Your task to perform on an android device: turn on location history Image 0: 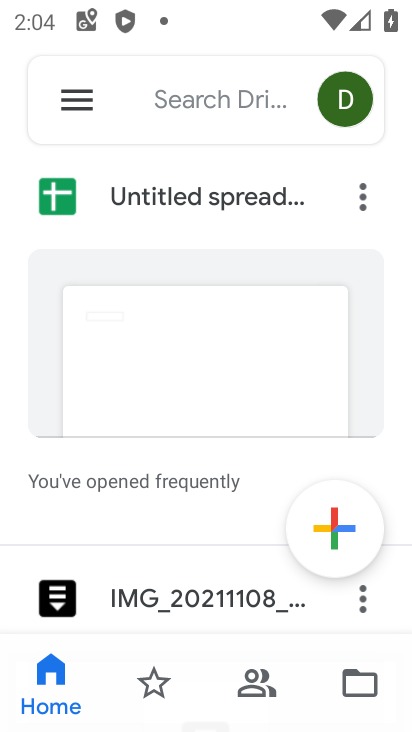
Step 0: press home button
Your task to perform on an android device: turn on location history Image 1: 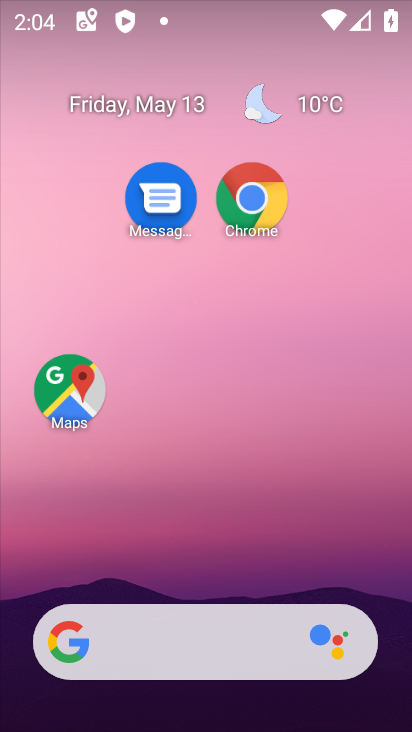
Step 1: drag from (204, 582) to (257, 24)
Your task to perform on an android device: turn on location history Image 2: 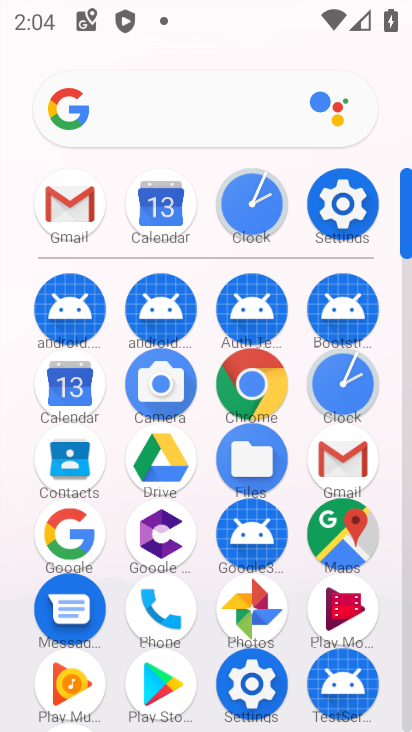
Step 2: click (347, 216)
Your task to perform on an android device: turn on location history Image 3: 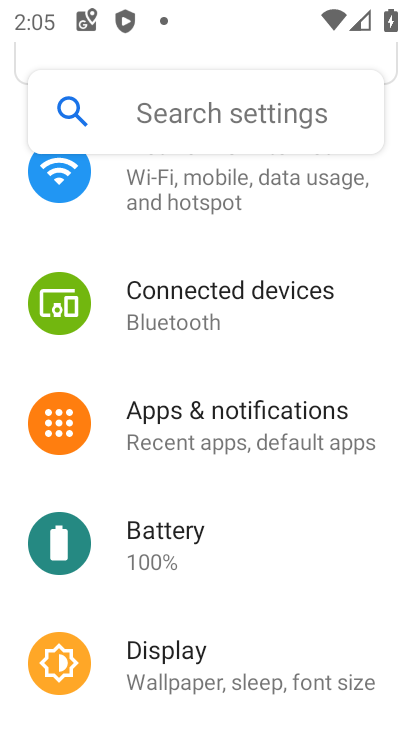
Step 3: drag from (257, 613) to (225, 194)
Your task to perform on an android device: turn on location history Image 4: 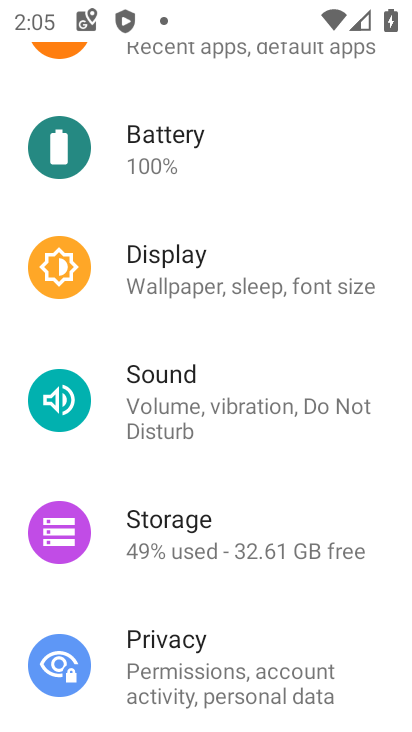
Step 4: drag from (225, 625) to (216, 204)
Your task to perform on an android device: turn on location history Image 5: 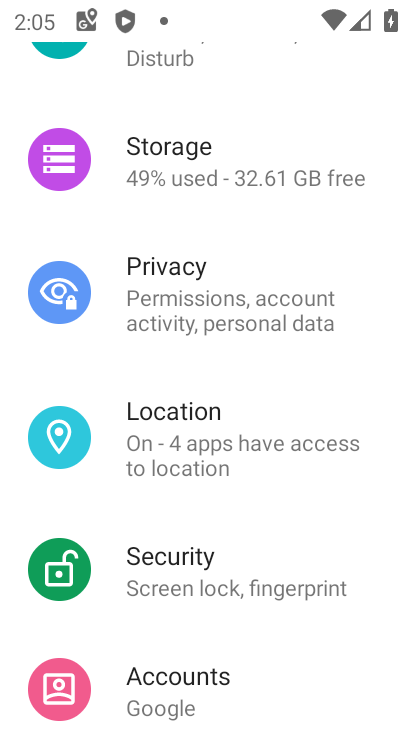
Step 5: click (167, 453)
Your task to perform on an android device: turn on location history Image 6: 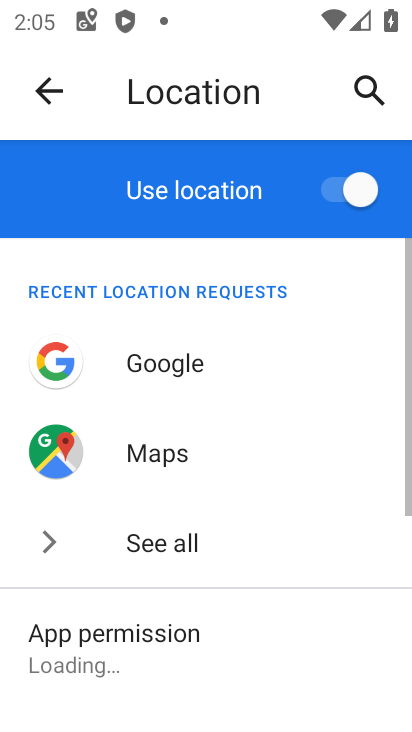
Step 6: drag from (275, 632) to (229, 242)
Your task to perform on an android device: turn on location history Image 7: 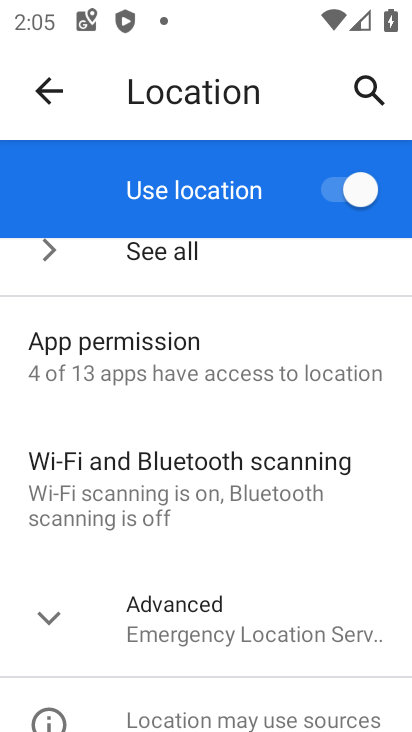
Step 7: click (177, 600)
Your task to perform on an android device: turn on location history Image 8: 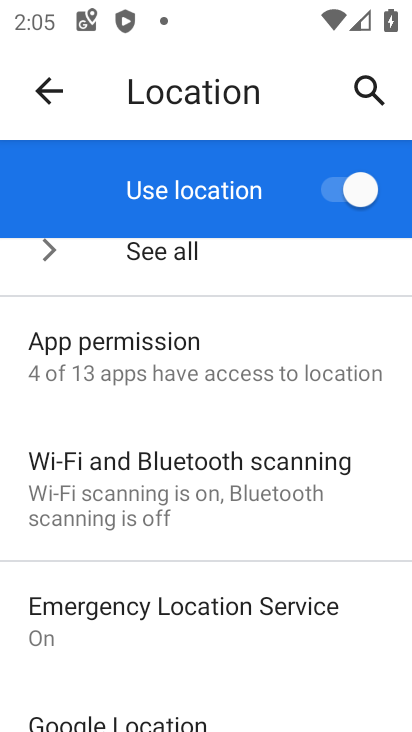
Step 8: drag from (235, 629) to (214, 234)
Your task to perform on an android device: turn on location history Image 9: 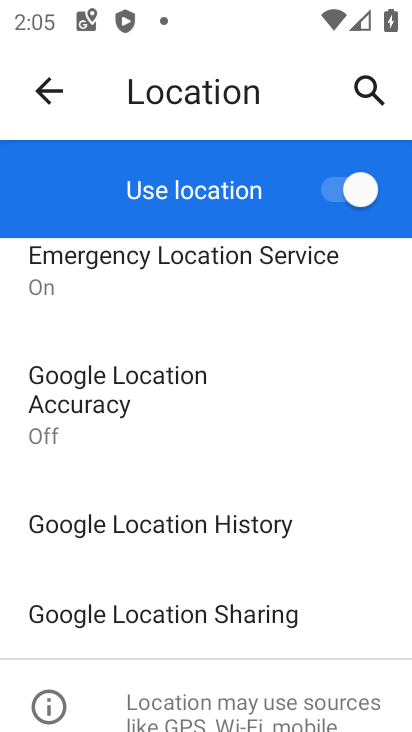
Step 9: click (235, 523)
Your task to perform on an android device: turn on location history Image 10: 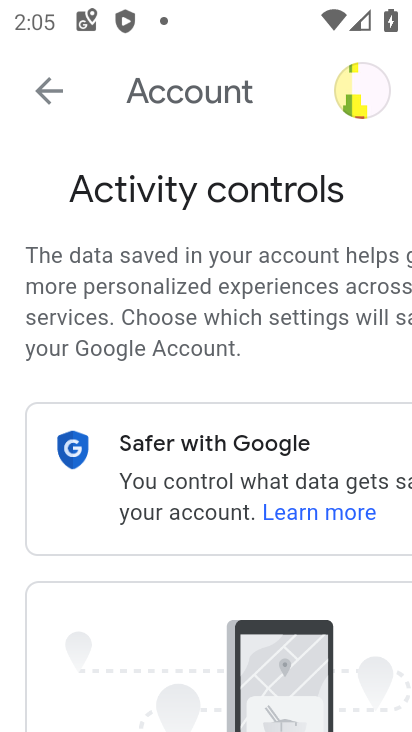
Step 10: drag from (173, 530) to (131, 145)
Your task to perform on an android device: turn on location history Image 11: 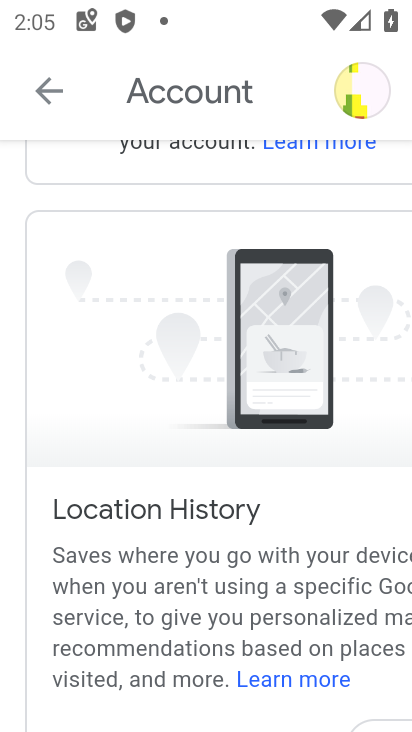
Step 11: drag from (283, 511) to (242, 196)
Your task to perform on an android device: turn on location history Image 12: 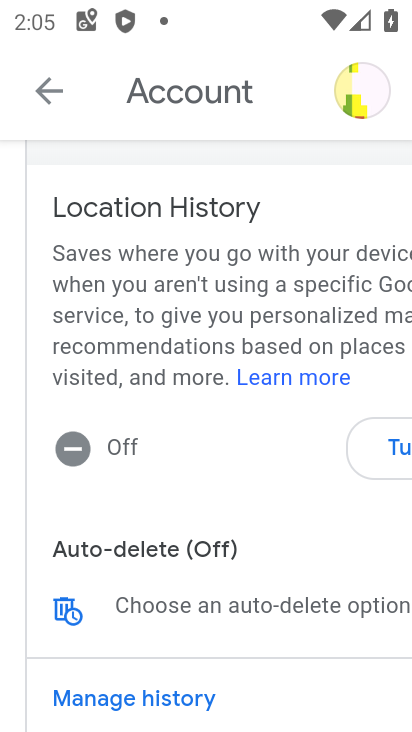
Step 12: click (391, 446)
Your task to perform on an android device: turn on location history Image 13: 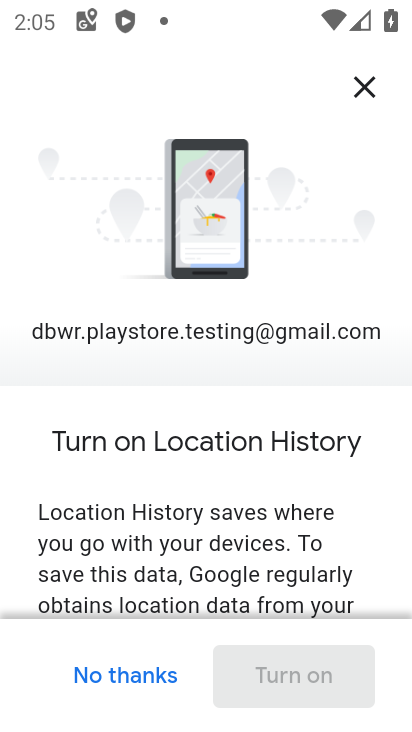
Step 13: drag from (280, 580) to (182, 31)
Your task to perform on an android device: turn on location history Image 14: 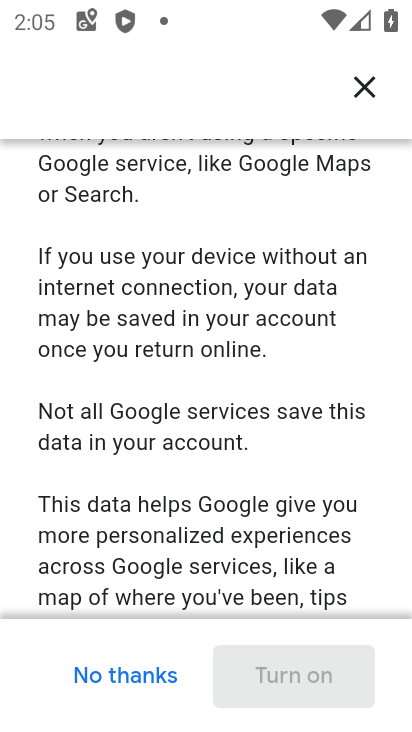
Step 14: drag from (203, 541) to (127, 32)
Your task to perform on an android device: turn on location history Image 15: 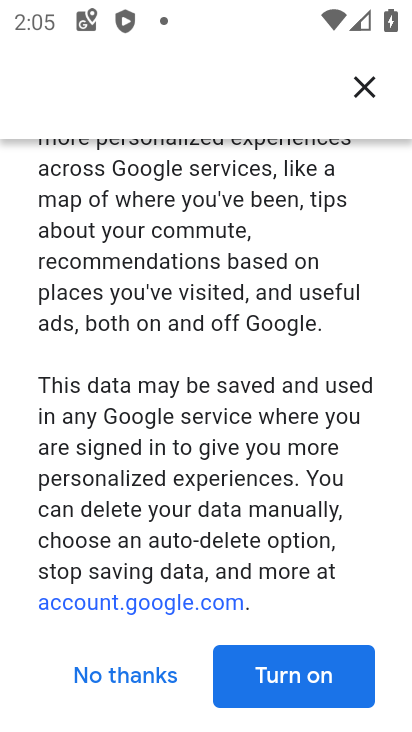
Step 15: click (273, 667)
Your task to perform on an android device: turn on location history Image 16: 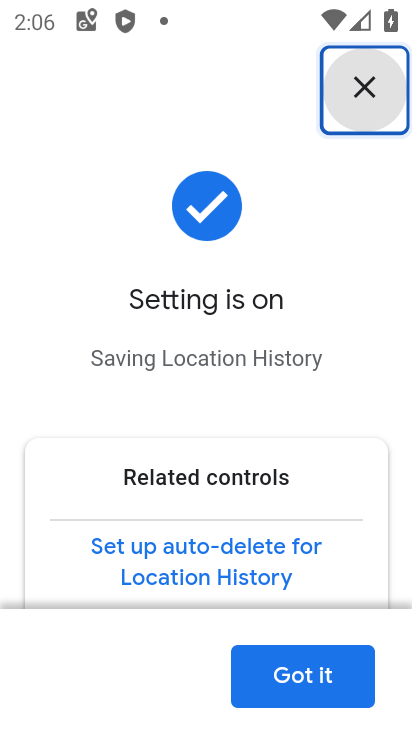
Step 16: click (304, 694)
Your task to perform on an android device: turn on location history Image 17: 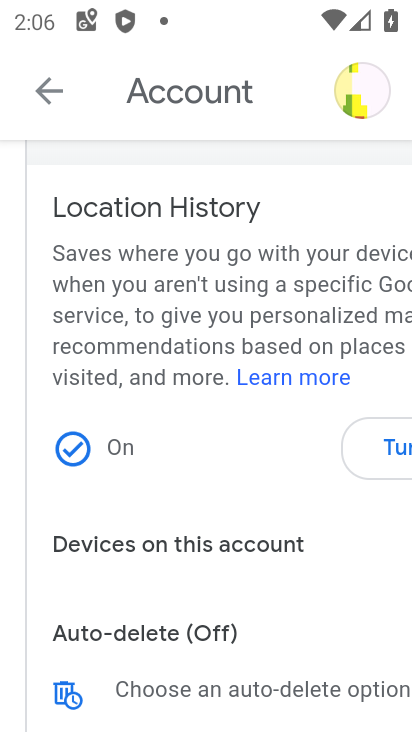
Step 17: task complete